Your task to perform on an android device: find photos in the google photos app Image 0: 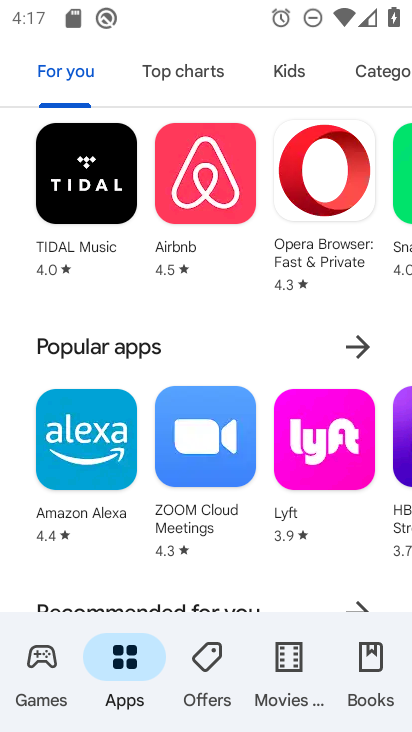
Step 0: press home button
Your task to perform on an android device: find photos in the google photos app Image 1: 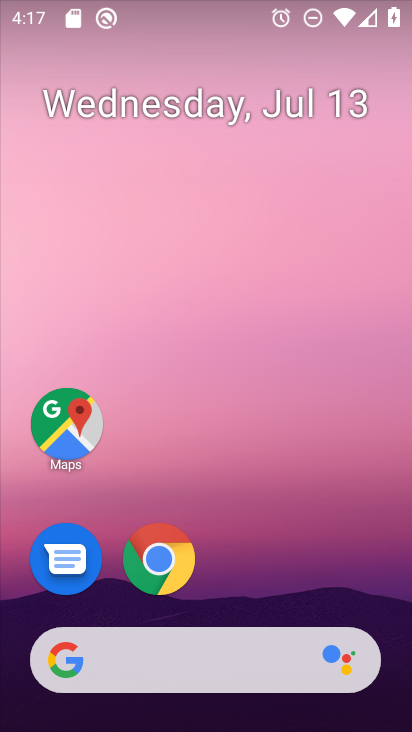
Step 1: drag from (369, 587) to (364, 146)
Your task to perform on an android device: find photos in the google photos app Image 2: 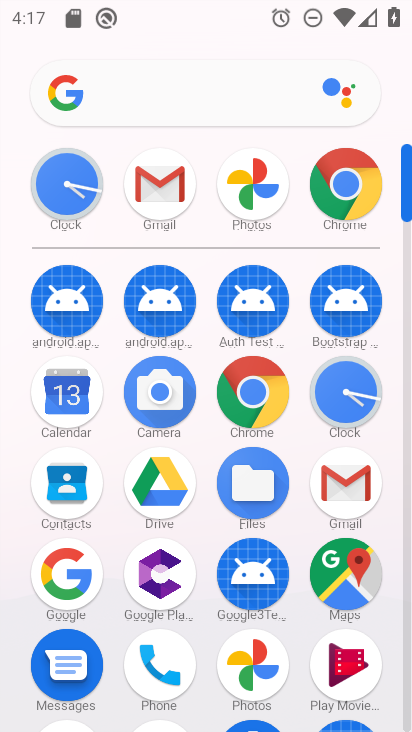
Step 2: drag from (383, 622) to (380, 374)
Your task to perform on an android device: find photos in the google photos app Image 3: 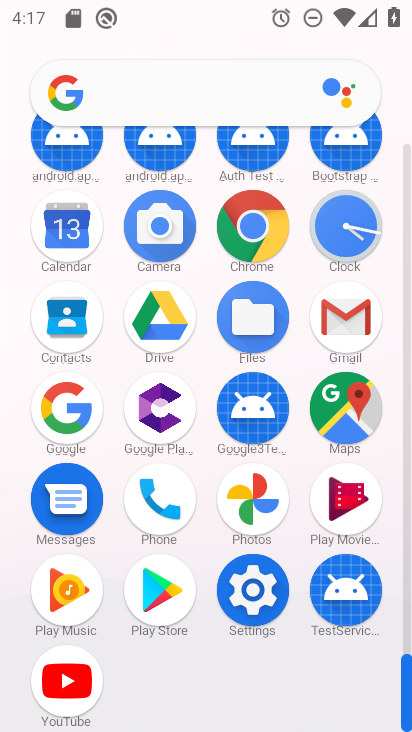
Step 3: click (273, 501)
Your task to perform on an android device: find photos in the google photos app Image 4: 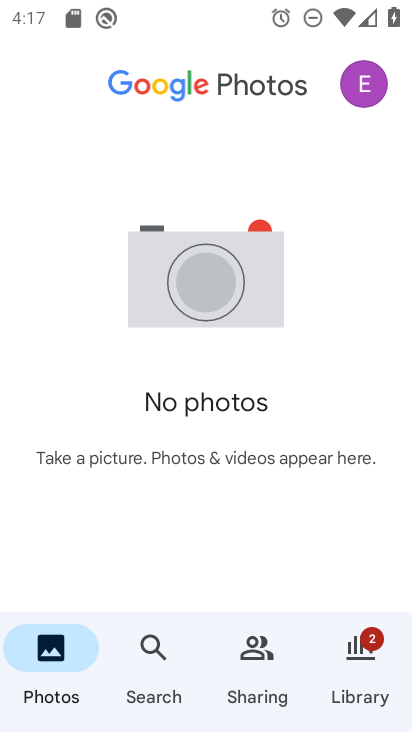
Step 4: task complete